Your task to perform on an android device: Go to eBay Image 0: 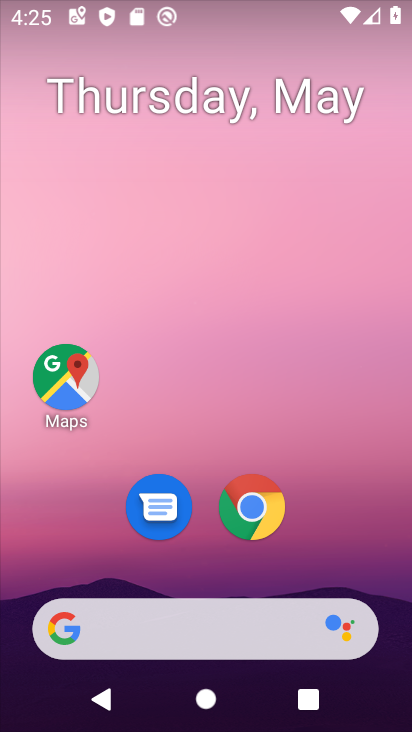
Step 0: click (247, 510)
Your task to perform on an android device: Go to eBay Image 1: 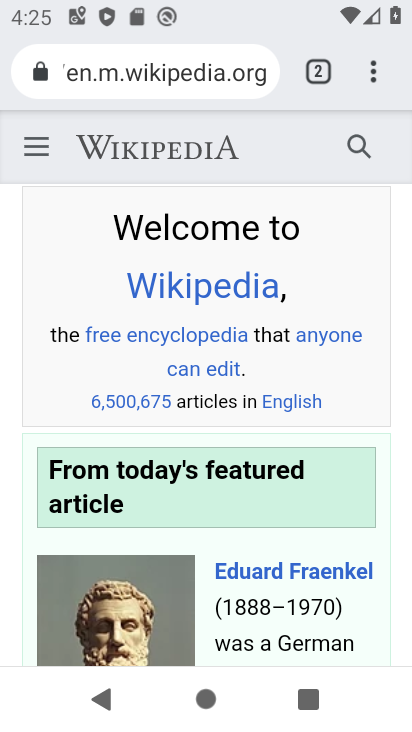
Step 1: click (184, 82)
Your task to perform on an android device: Go to eBay Image 2: 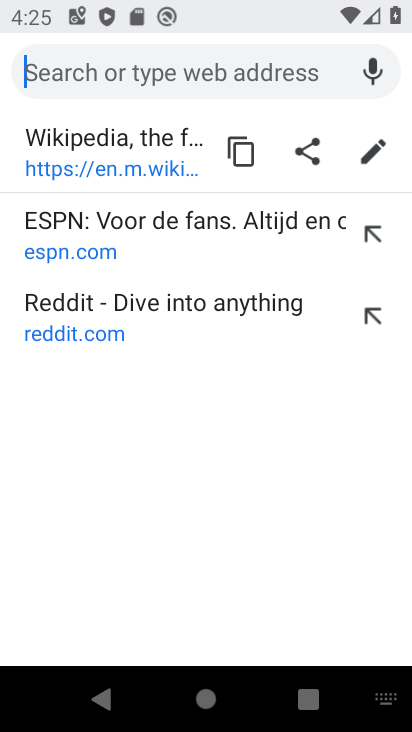
Step 2: type "ebay"
Your task to perform on an android device: Go to eBay Image 3: 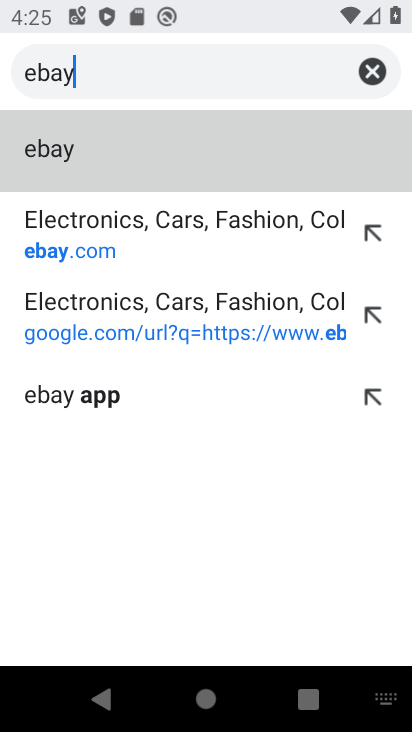
Step 3: click (169, 153)
Your task to perform on an android device: Go to eBay Image 4: 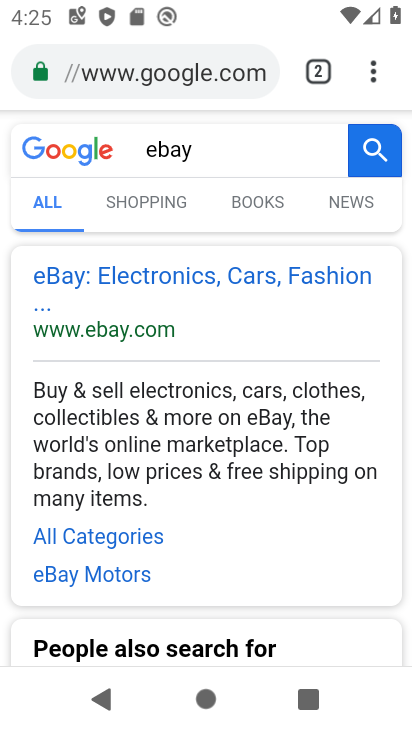
Step 4: click (84, 267)
Your task to perform on an android device: Go to eBay Image 5: 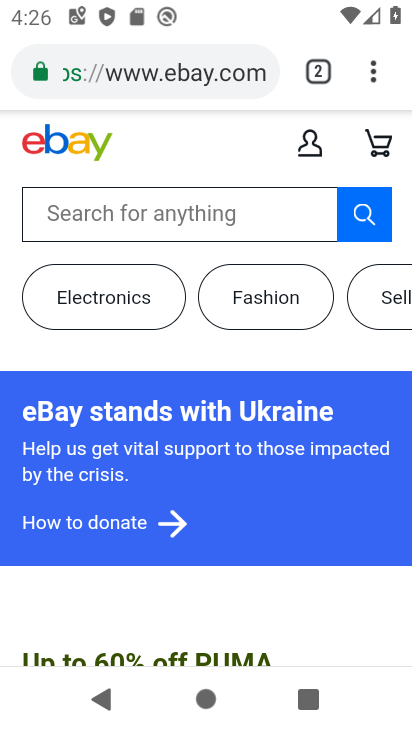
Step 5: task complete